Your task to perform on an android device: refresh tabs in the chrome app Image 0: 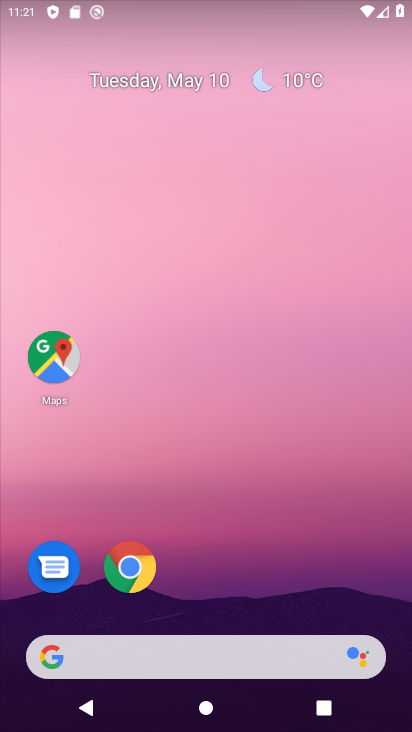
Step 0: drag from (356, 576) to (406, 177)
Your task to perform on an android device: refresh tabs in the chrome app Image 1: 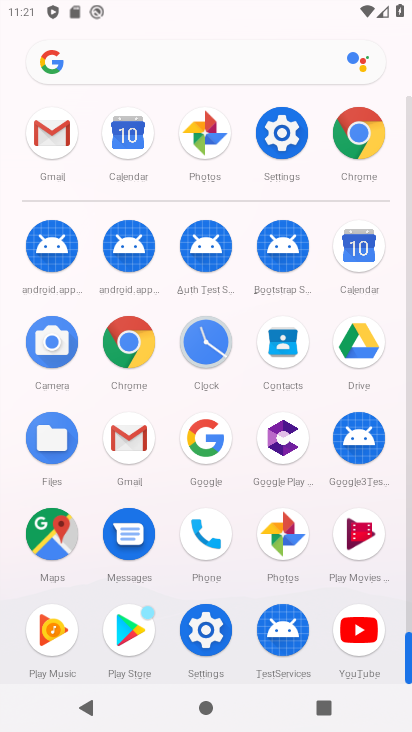
Step 1: click (123, 337)
Your task to perform on an android device: refresh tabs in the chrome app Image 2: 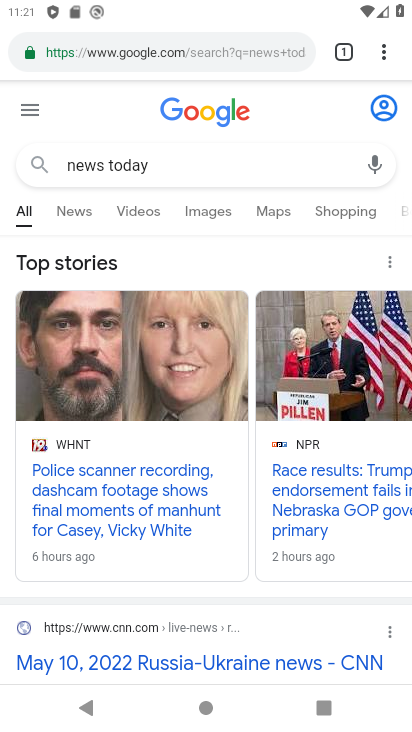
Step 2: task complete